Your task to perform on an android device: Go to settings Image 0: 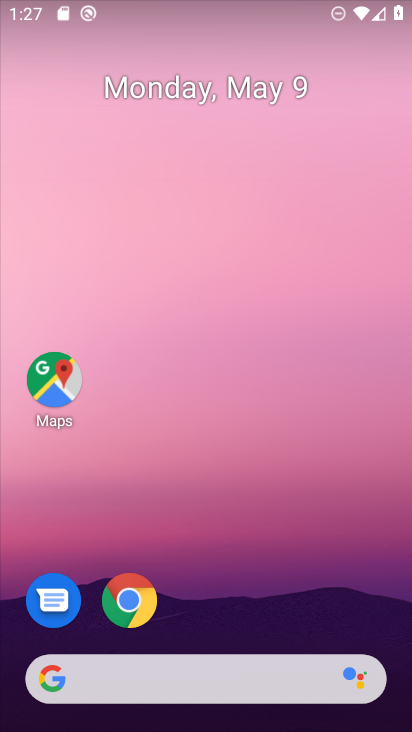
Step 0: drag from (177, 675) to (366, 59)
Your task to perform on an android device: Go to settings Image 1: 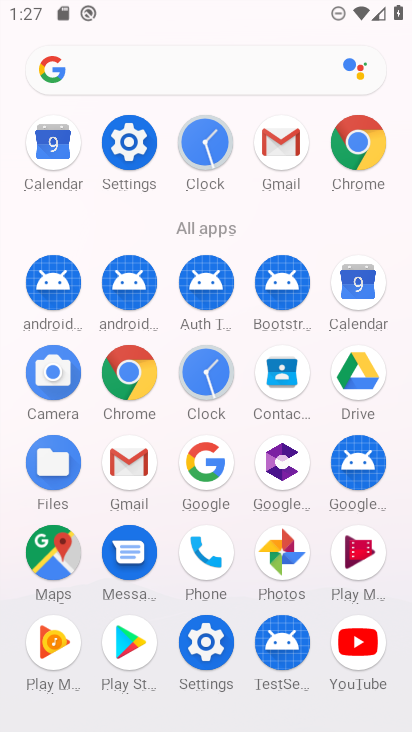
Step 1: click (143, 154)
Your task to perform on an android device: Go to settings Image 2: 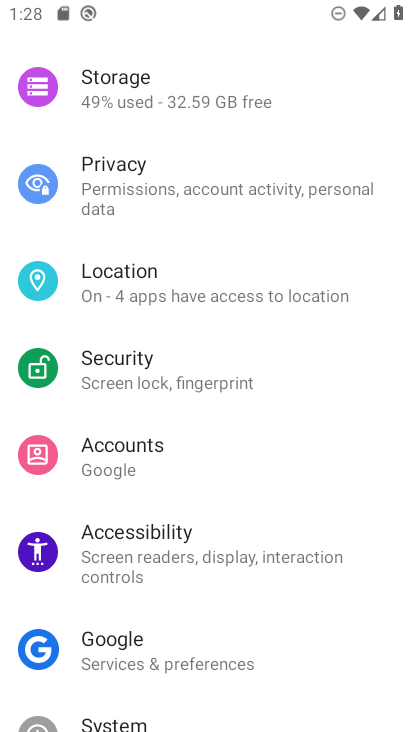
Step 2: task complete